Your task to perform on an android device: visit the assistant section in the google photos Image 0: 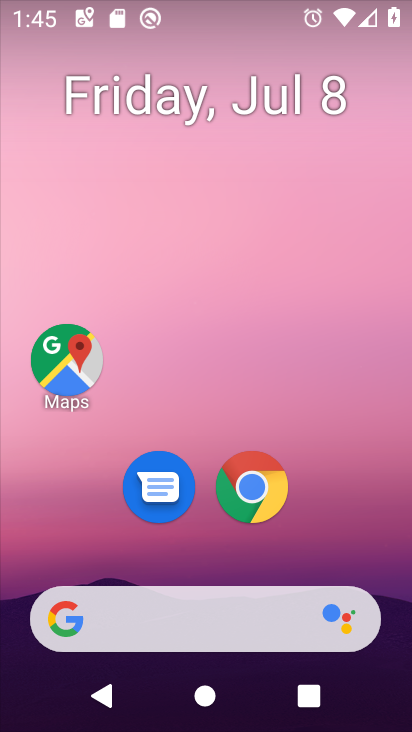
Step 0: drag from (378, 552) to (369, 211)
Your task to perform on an android device: visit the assistant section in the google photos Image 1: 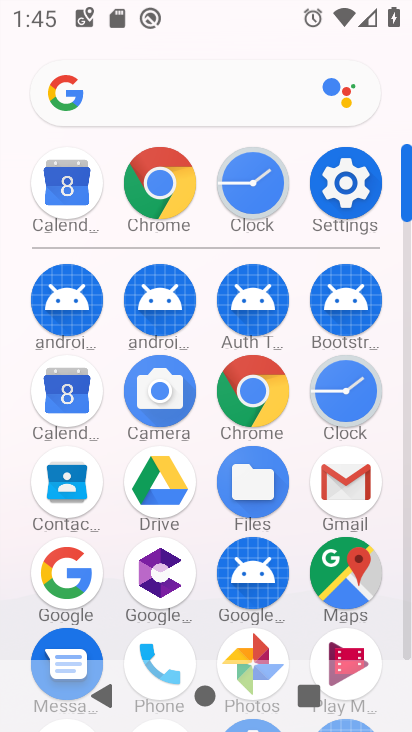
Step 1: click (249, 663)
Your task to perform on an android device: visit the assistant section in the google photos Image 2: 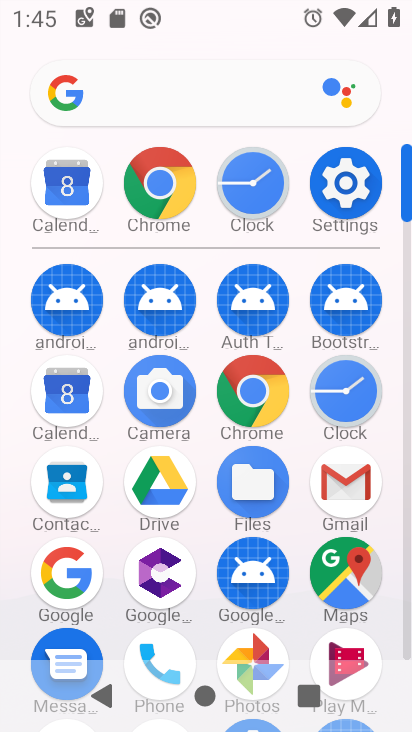
Step 2: click (249, 663)
Your task to perform on an android device: visit the assistant section in the google photos Image 3: 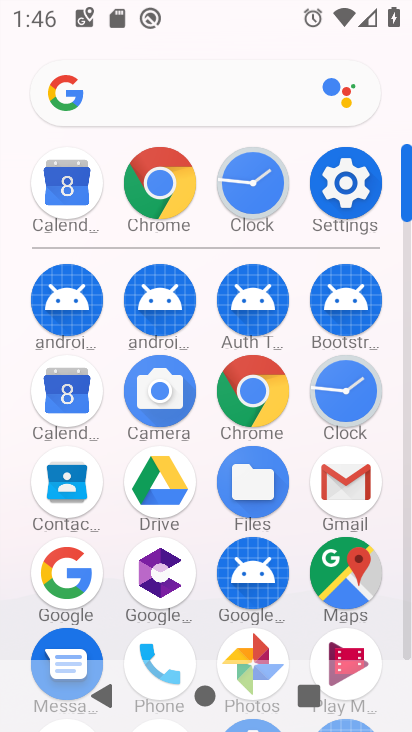
Step 3: drag from (386, 602) to (394, 397)
Your task to perform on an android device: visit the assistant section in the google photos Image 4: 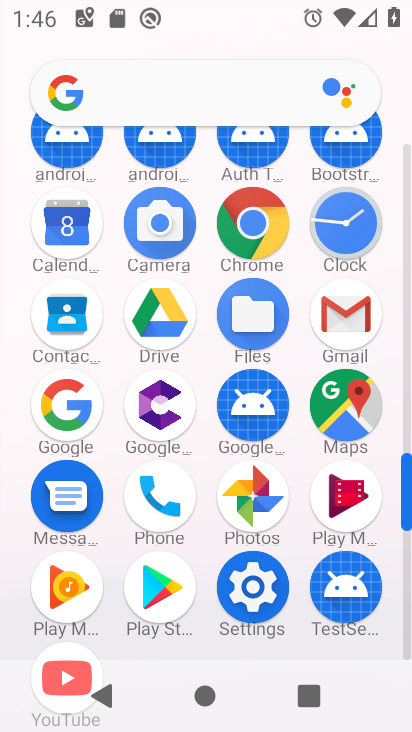
Step 4: click (258, 497)
Your task to perform on an android device: visit the assistant section in the google photos Image 5: 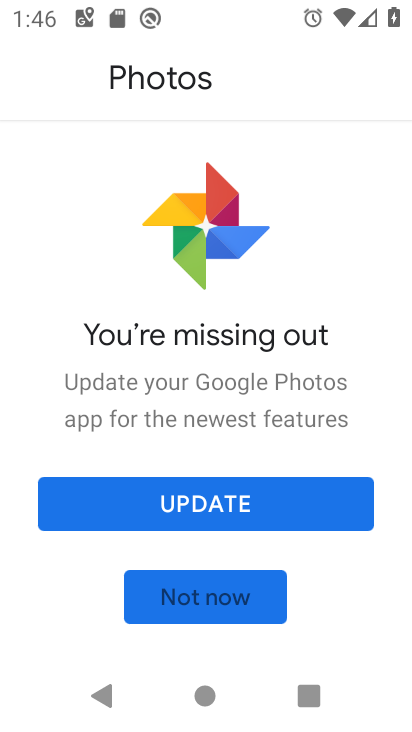
Step 5: click (258, 497)
Your task to perform on an android device: visit the assistant section in the google photos Image 6: 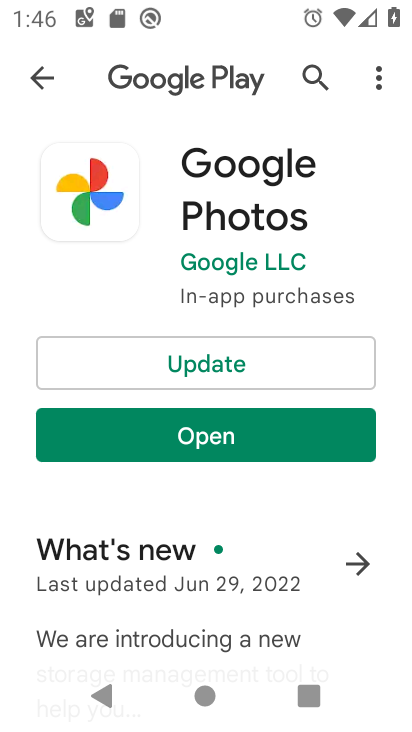
Step 6: click (257, 364)
Your task to perform on an android device: visit the assistant section in the google photos Image 7: 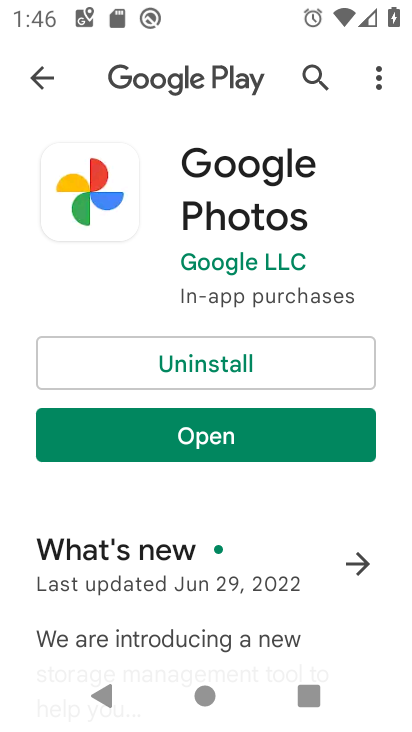
Step 7: click (230, 450)
Your task to perform on an android device: visit the assistant section in the google photos Image 8: 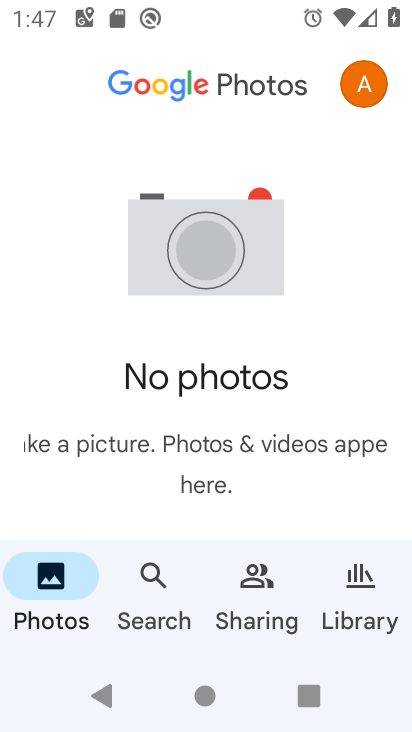
Step 8: task complete